Your task to perform on an android device: find which apps use the phone's location Image 0: 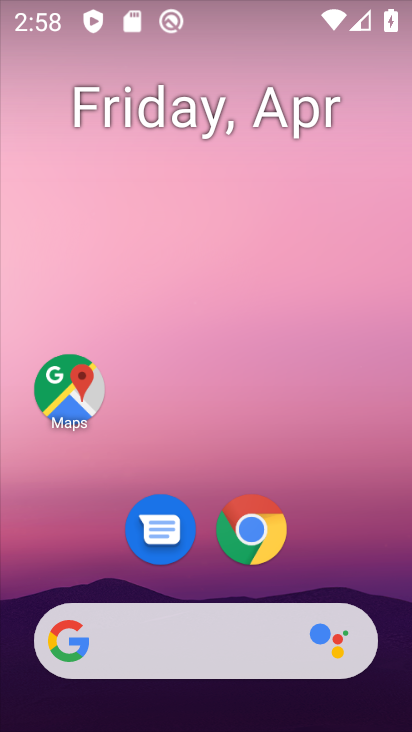
Step 0: drag from (228, 442) to (299, 1)
Your task to perform on an android device: find which apps use the phone's location Image 1: 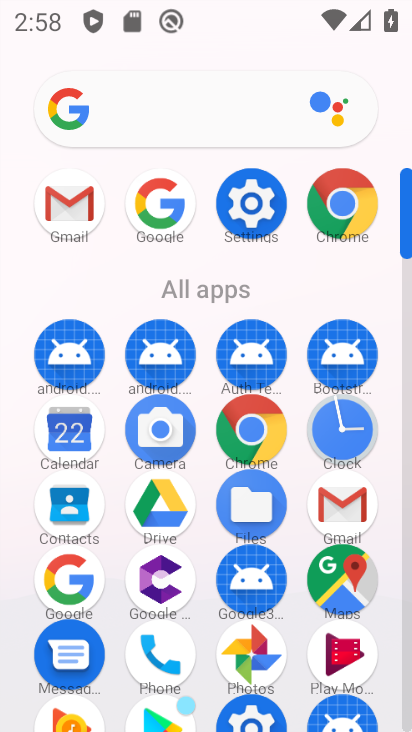
Step 1: click (246, 201)
Your task to perform on an android device: find which apps use the phone's location Image 2: 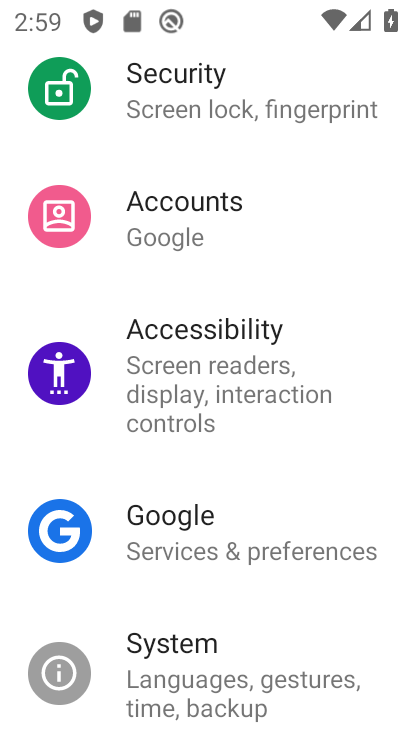
Step 2: drag from (281, 275) to (271, 214)
Your task to perform on an android device: find which apps use the phone's location Image 3: 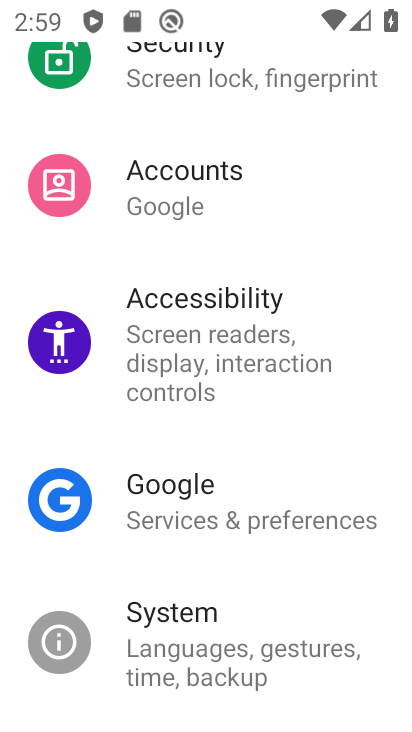
Step 3: drag from (235, 374) to (244, 539)
Your task to perform on an android device: find which apps use the phone's location Image 4: 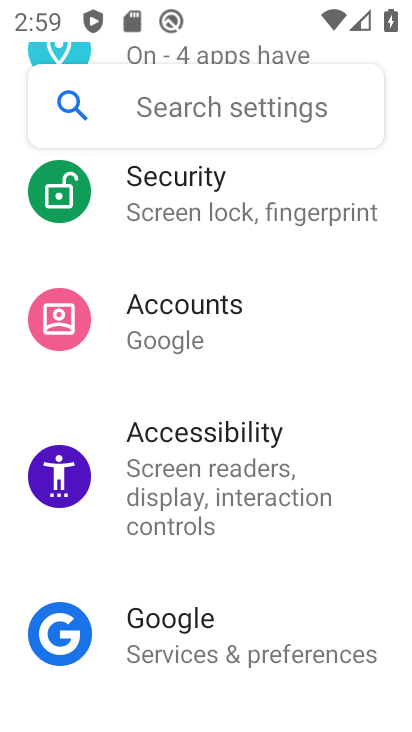
Step 4: drag from (243, 391) to (203, 694)
Your task to perform on an android device: find which apps use the phone's location Image 5: 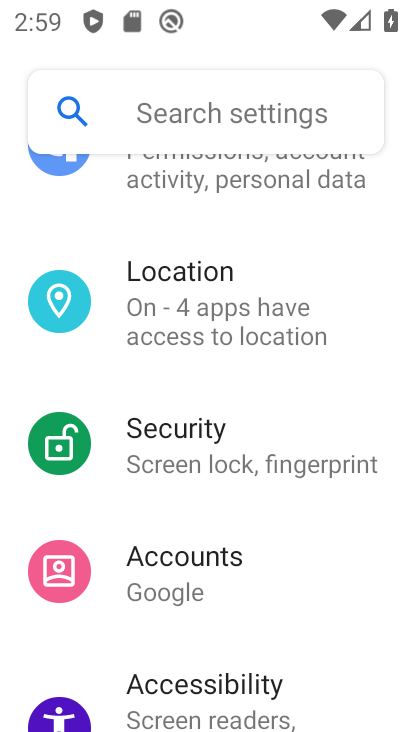
Step 5: click (226, 318)
Your task to perform on an android device: find which apps use the phone's location Image 6: 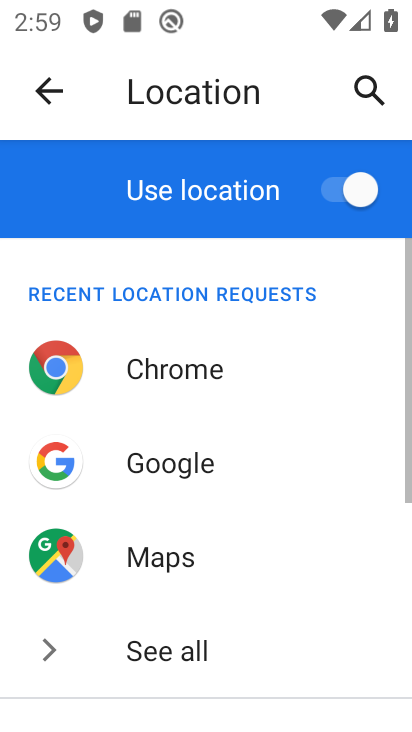
Step 6: drag from (200, 579) to (249, 306)
Your task to perform on an android device: find which apps use the phone's location Image 7: 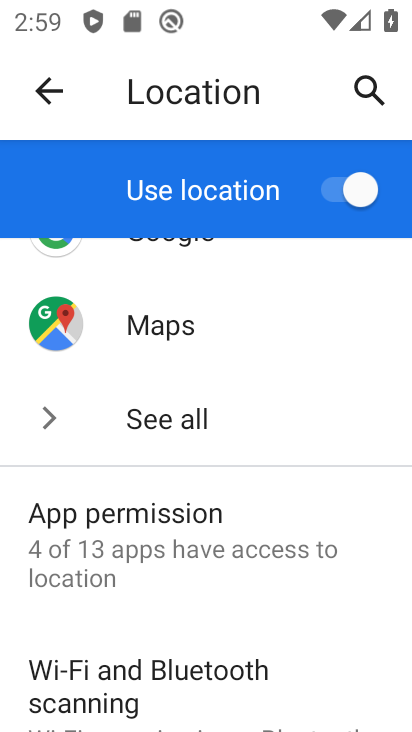
Step 7: drag from (178, 581) to (179, 388)
Your task to perform on an android device: find which apps use the phone's location Image 8: 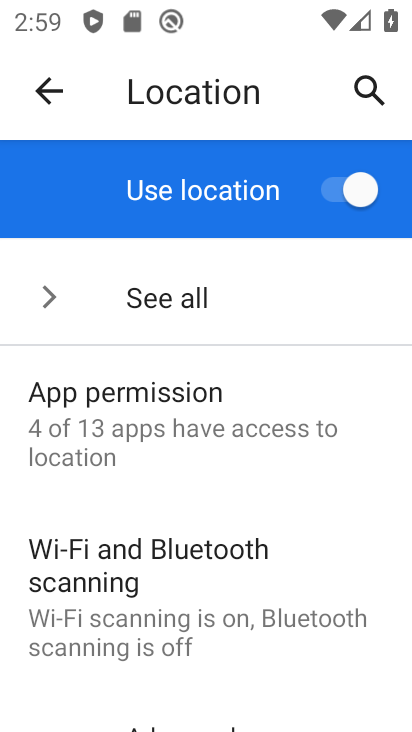
Step 8: drag from (227, 597) to (274, 362)
Your task to perform on an android device: find which apps use the phone's location Image 9: 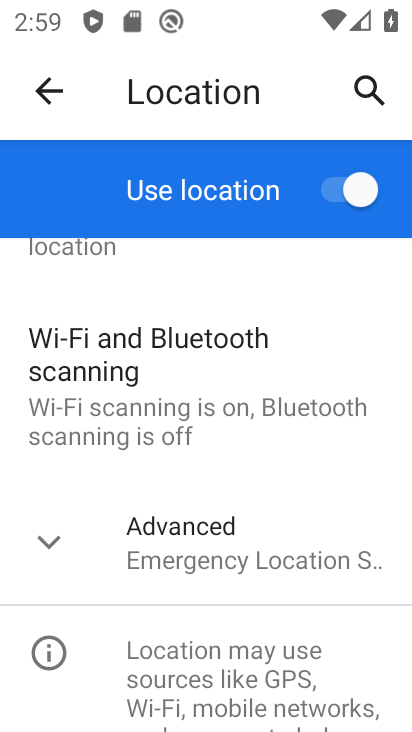
Step 9: drag from (230, 500) to (212, 648)
Your task to perform on an android device: find which apps use the phone's location Image 10: 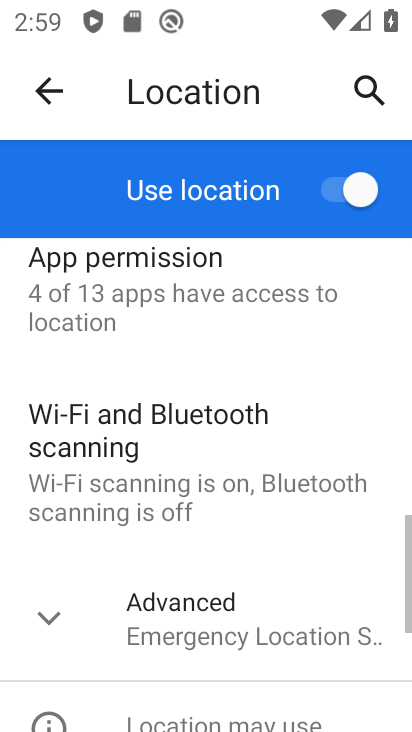
Step 10: drag from (248, 439) to (215, 667)
Your task to perform on an android device: find which apps use the phone's location Image 11: 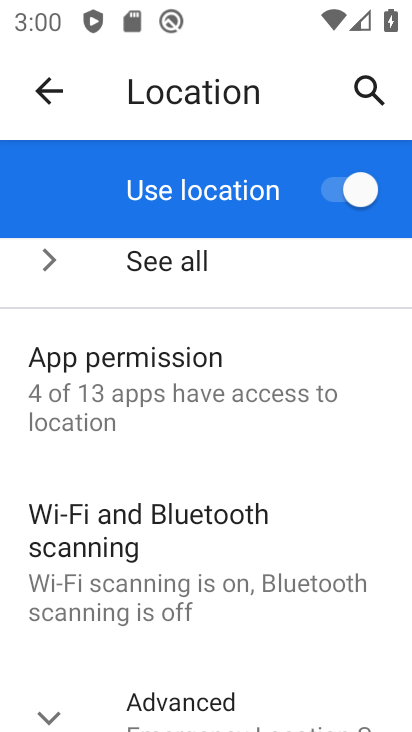
Step 11: click (242, 398)
Your task to perform on an android device: find which apps use the phone's location Image 12: 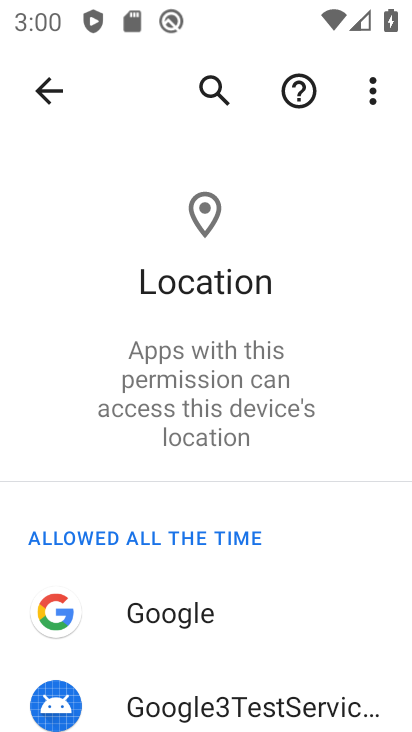
Step 12: task complete